Your task to perform on an android device: turn notification dots on Image 0: 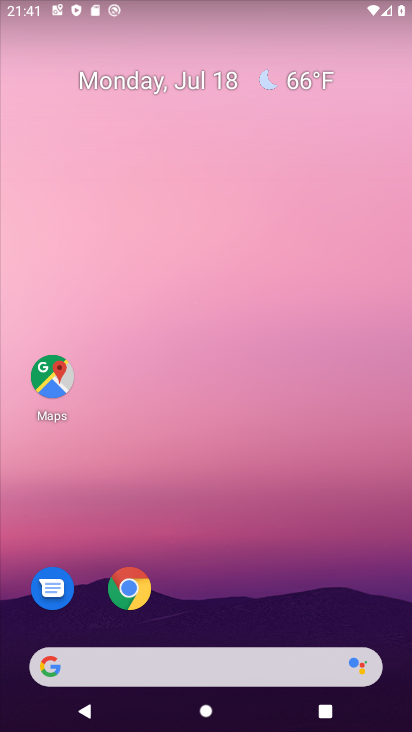
Step 0: drag from (221, 656) to (275, 87)
Your task to perform on an android device: turn notification dots on Image 1: 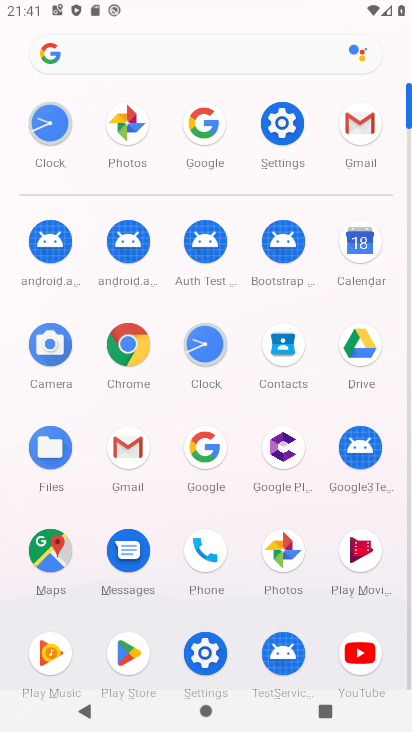
Step 1: click (284, 131)
Your task to perform on an android device: turn notification dots on Image 2: 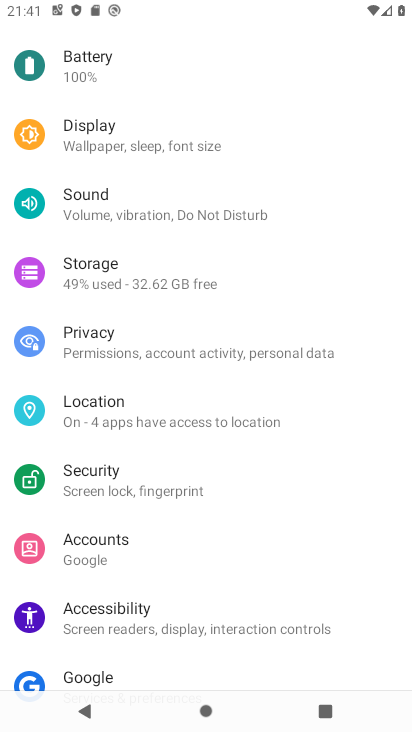
Step 2: drag from (190, 90) to (192, 530)
Your task to perform on an android device: turn notification dots on Image 3: 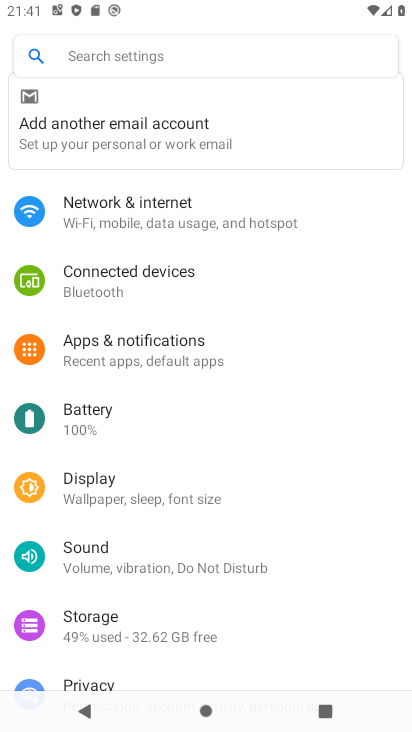
Step 3: click (140, 346)
Your task to perform on an android device: turn notification dots on Image 4: 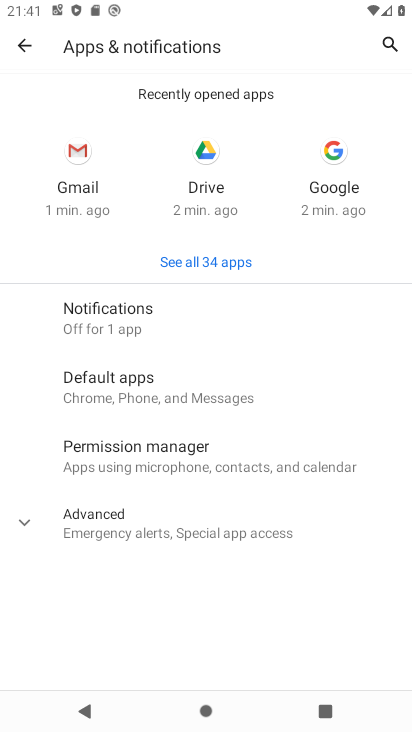
Step 4: click (135, 310)
Your task to perform on an android device: turn notification dots on Image 5: 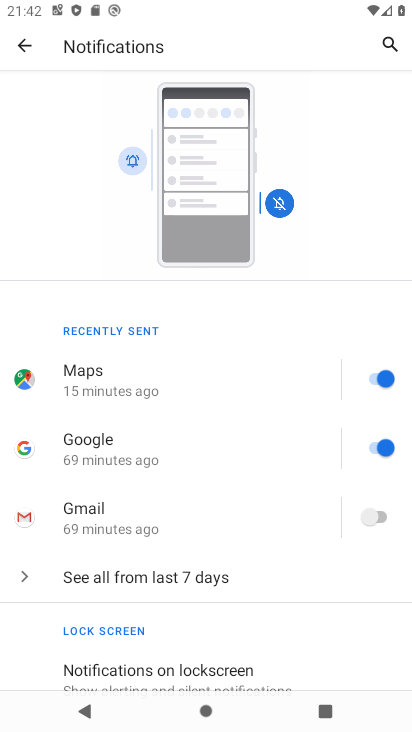
Step 5: drag from (185, 599) to (275, 147)
Your task to perform on an android device: turn notification dots on Image 6: 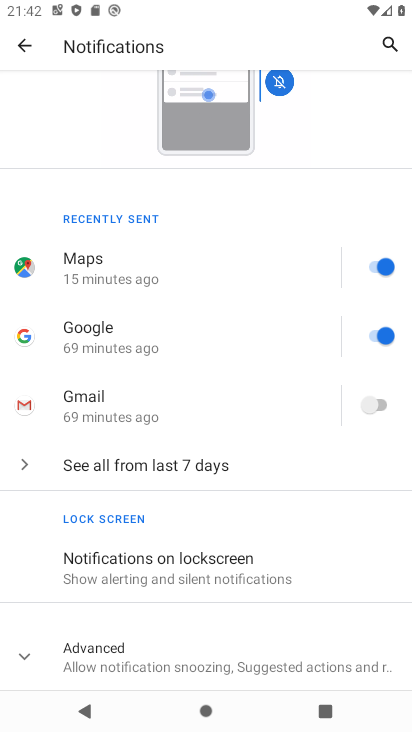
Step 6: click (144, 646)
Your task to perform on an android device: turn notification dots on Image 7: 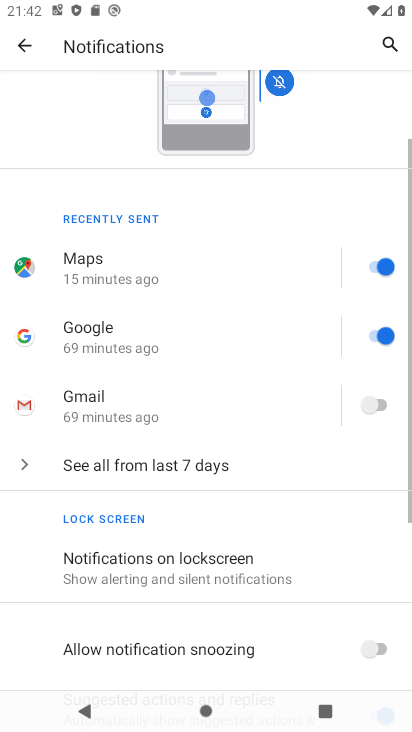
Step 7: drag from (240, 613) to (312, 128)
Your task to perform on an android device: turn notification dots on Image 8: 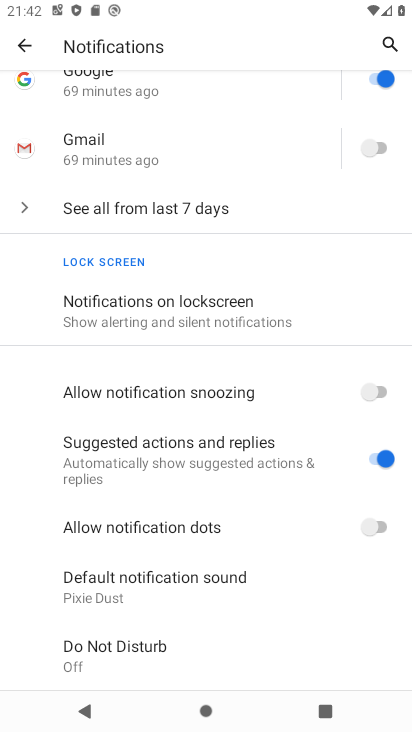
Step 8: click (382, 526)
Your task to perform on an android device: turn notification dots on Image 9: 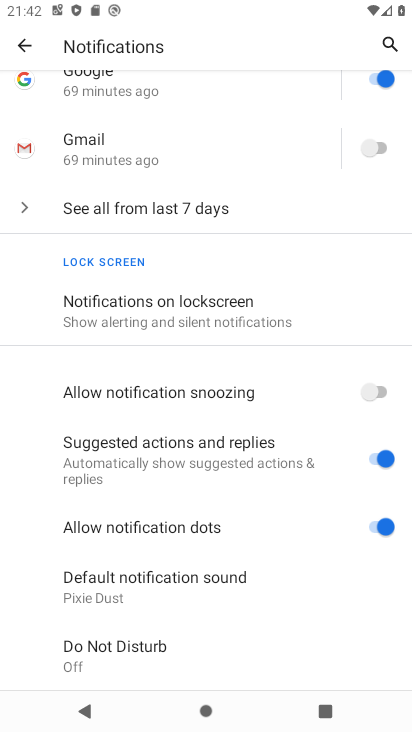
Step 9: task complete